Your task to perform on an android device: clear all cookies in the chrome app Image 0: 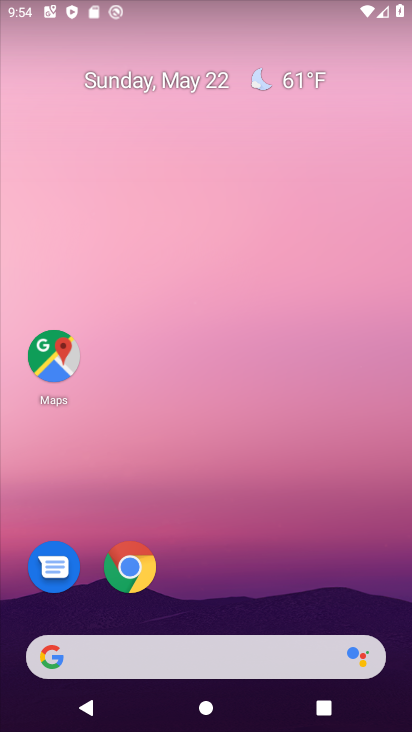
Step 0: click (136, 568)
Your task to perform on an android device: clear all cookies in the chrome app Image 1: 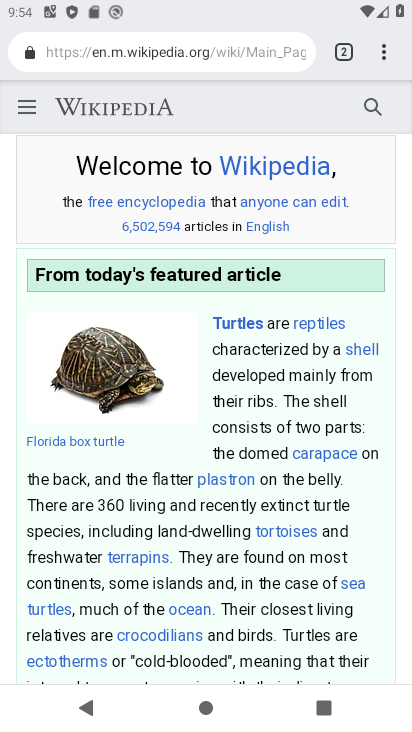
Step 1: click (381, 54)
Your task to perform on an android device: clear all cookies in the chrome app Image 2: 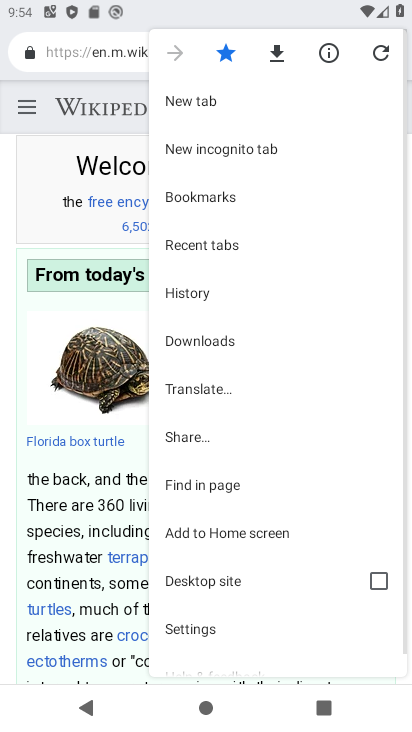
Step 2: click (199, 610)
Your task to perform on an android device: clear all cookies in the chrome app Image 3: 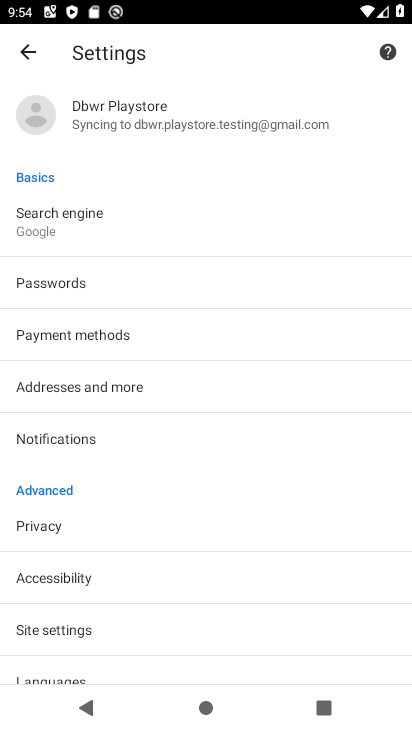
Step 3: click (69, 528)
Your task to perform on an android device: clear all cookies in the chrome app Image 4: 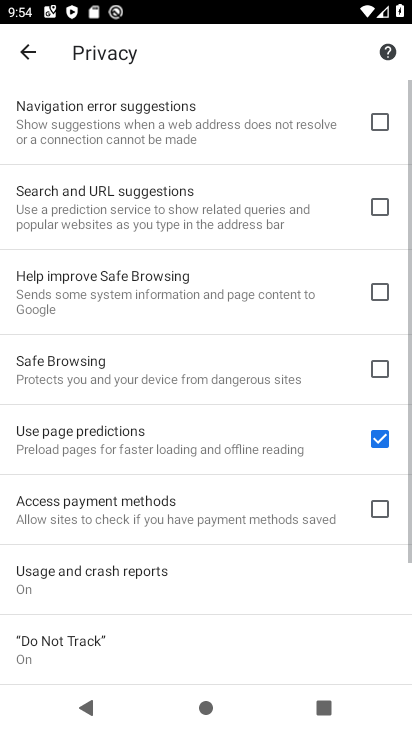
Step 4: drag from (115, 671) to (85, 142)
Your task to perform on an android device: clear all cookies in the chrome app Image 5: 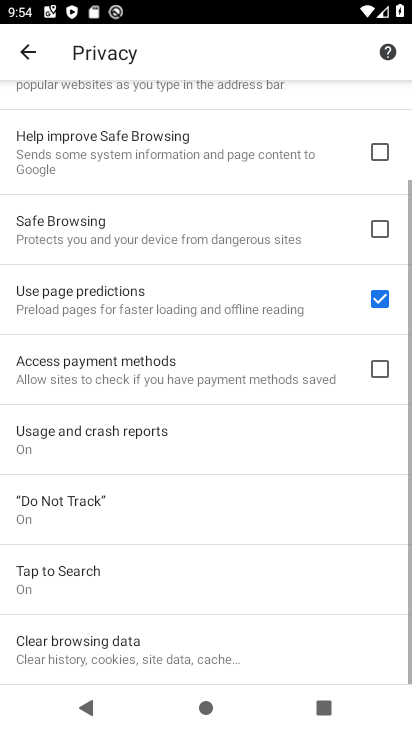
Step 5: click (93, 653)
Your task to perform on an android device: clear all cookies in the chrome app Image 6: 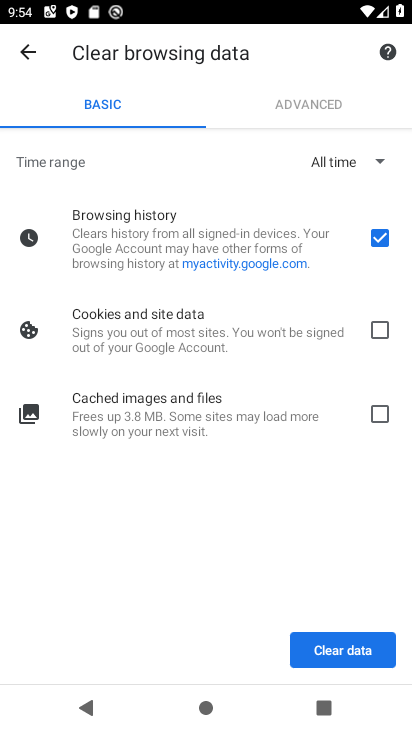
Step 6: click (375, 331)
Your task to perform on an android device: clear all cookies in the chrome app Image 7: 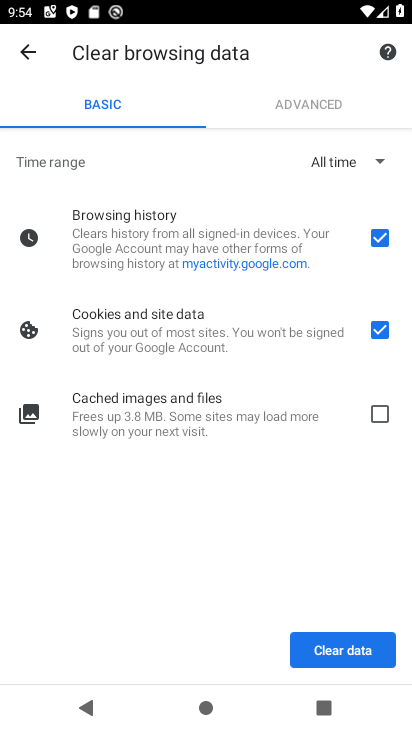
Step 7: click (380, 412)
Your task to perform on an android device: clear all cookies in the chrome app Image 8: 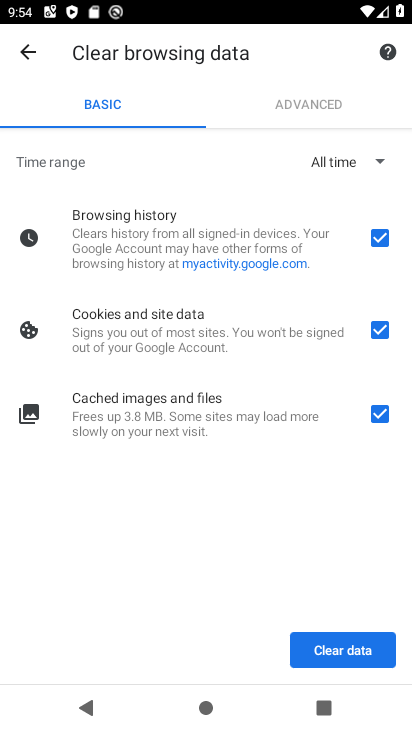
Step 8: task complete